Your task to perform on an android device: Open display settings Image 0: 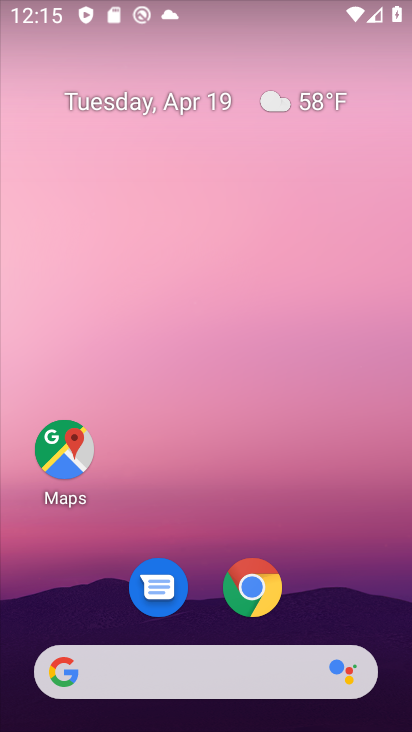
Step 0: drag from (387, 595) to (385, 175)
Your task to perform on an android device: Open display settings Image 1: 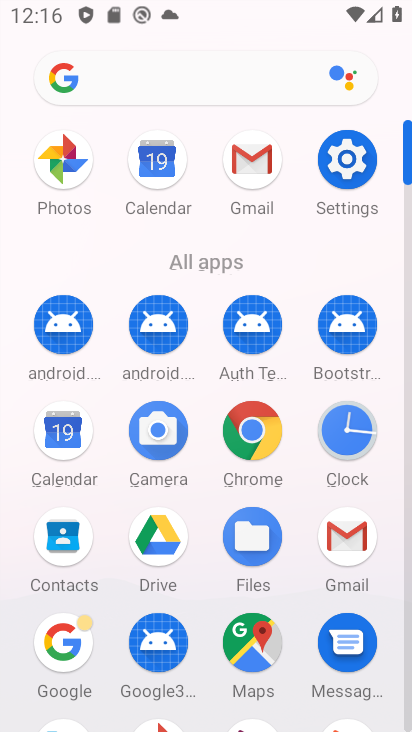
Step 1: click (362, 180)
Your task to perform on an android device: Open display settings Image 2: 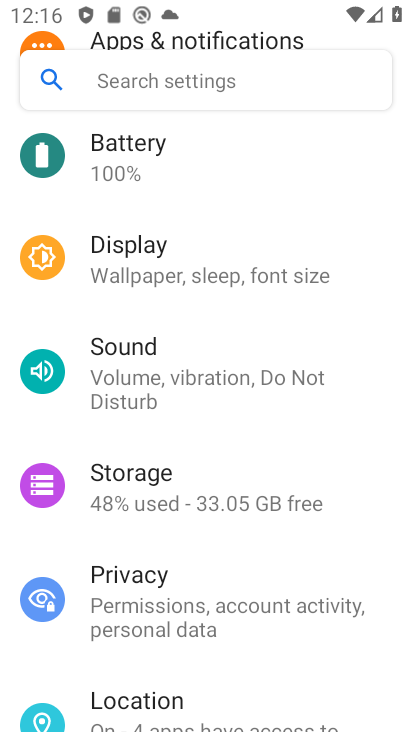
Step 2: click (275, 257)
Your task to perform on an android device: Open display settings Image 3: 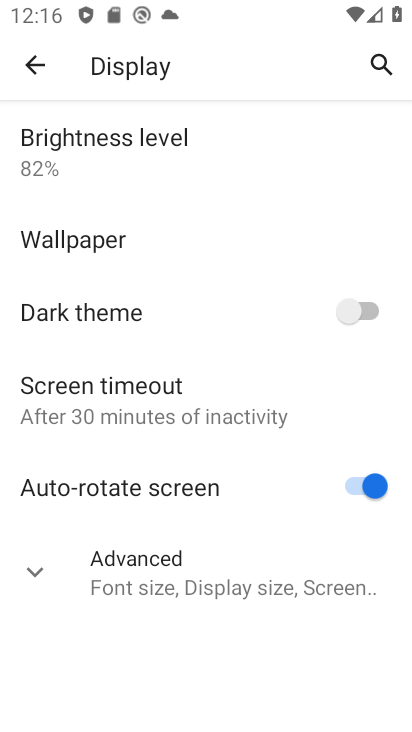
Step 3: task complete